Your task to perform on an android device: see tabs open on other devices in the chrome app Image 0: 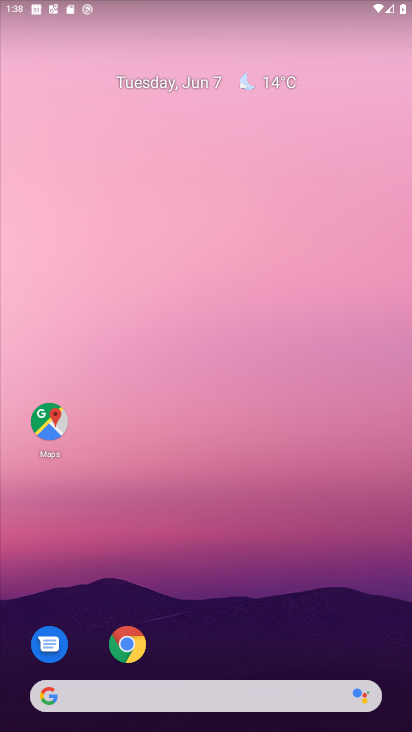
Step 0: click (128, 643)
Your task to perform on an android device: see tabs open on other devices in the chrome app Image 1: 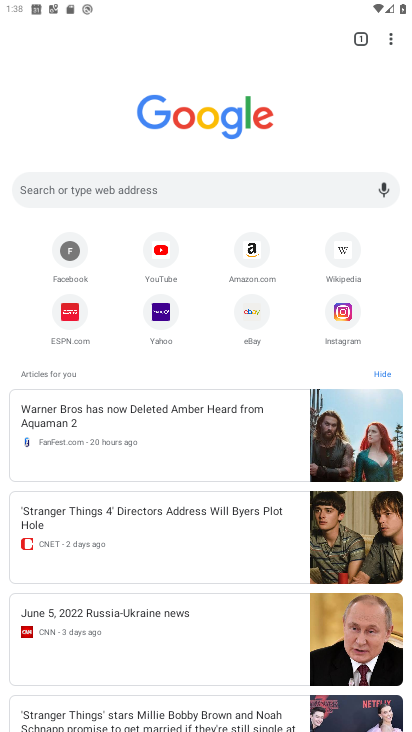
Step 1: click (395, 50)
Your task to perform on an android device: see tabs open on other devices in the chrome app Image 2: 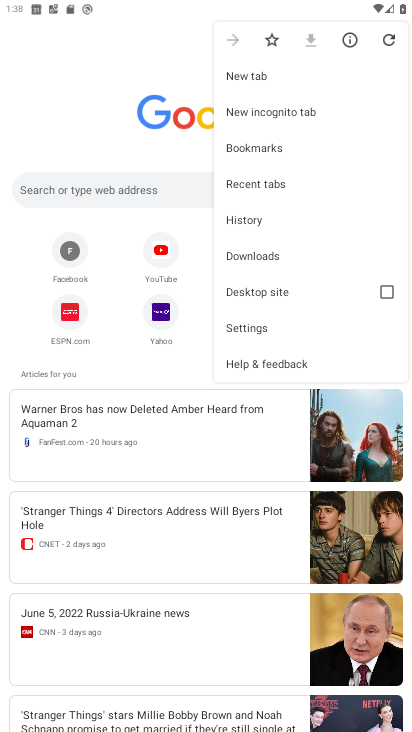
Step 2: click (257, 184)
Your task to perform on an android device: see tabs open on other devices in the chrome app Image 3: 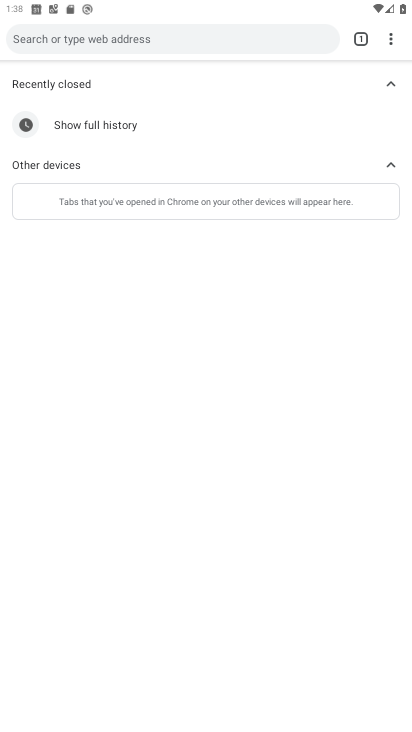
Step 3: task complete